Your task to perform on an android device: toggle notification dots Image 0: 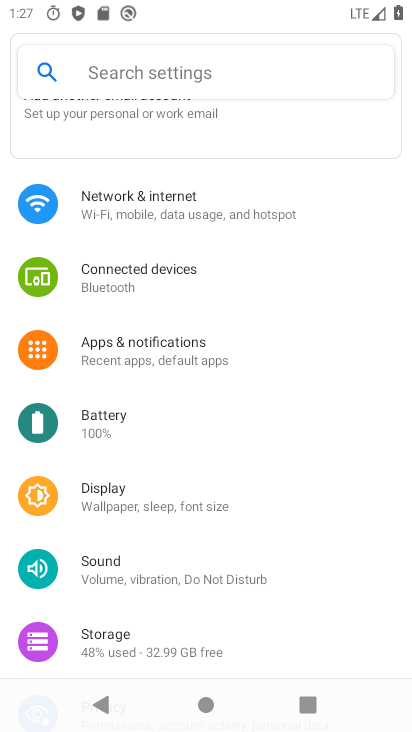
Step 0: press home button
Your task to perform on an android device: toggle notification dots Image 1: 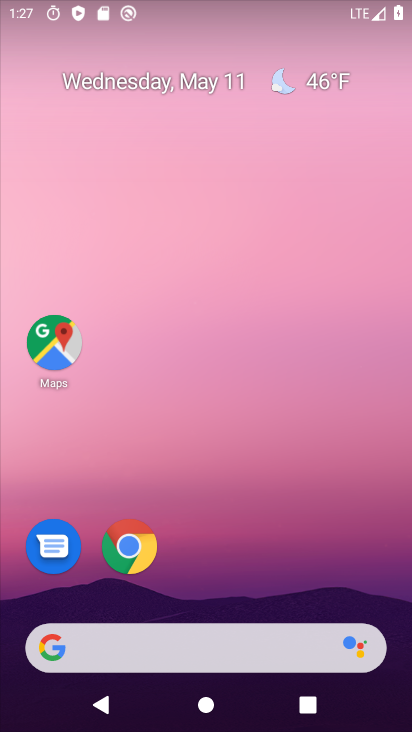
Step 1: drag from (297, 654) to (237, 223)
Your task to perform on an android device: toggle notification dots Image 2: 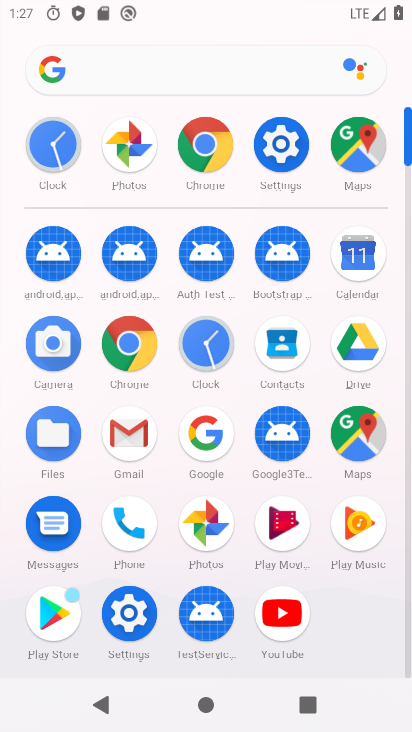
Step 2: click (285, 149)
Your task to perform on an android device: toggle notification dots Image 3: 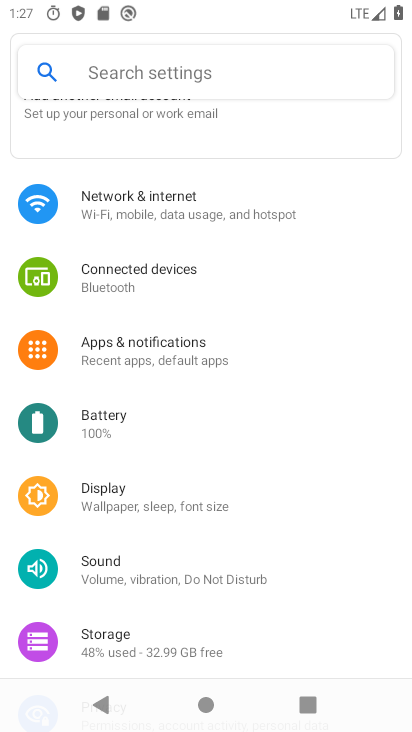
Step 3: click (184, 74)
Your task to perform on an android device: toggle notification dots Image 4: 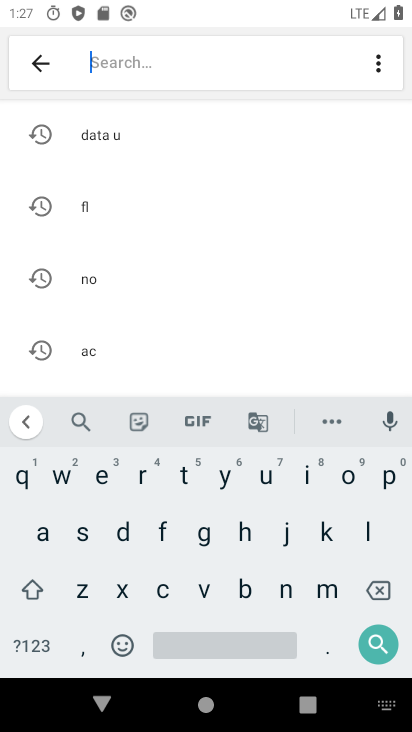
Step 4: click (122, 528)
Your task to perform on an android device: toggle notification dots Image 5: 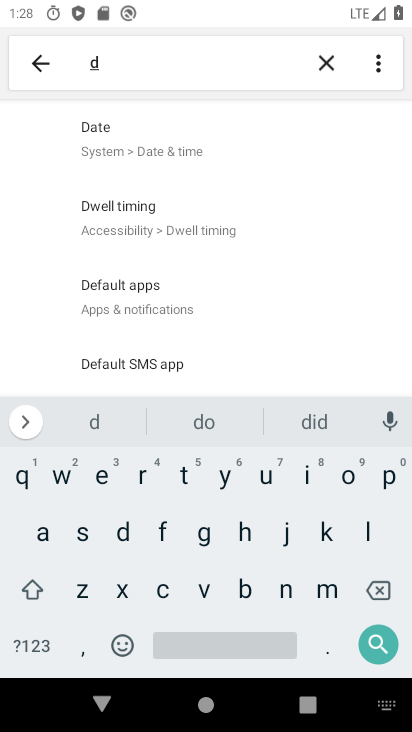
Step 5: click (348, 476)
Your task to perform on an android device: toggle notification dots Image 6: 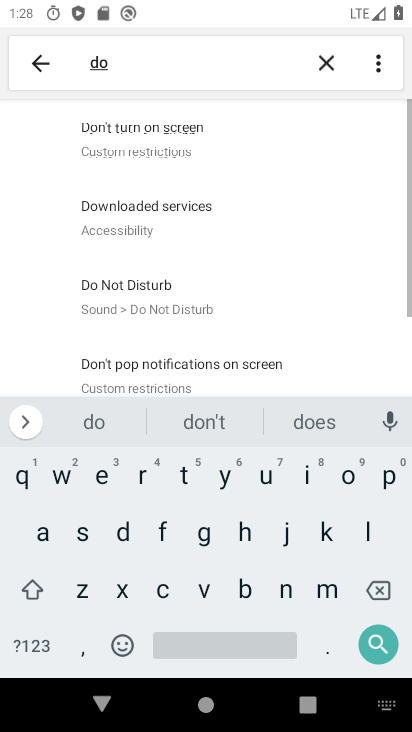
Step 6: click (178, 472)
Your task to perform on an android device: toggle notification dots Image 7: 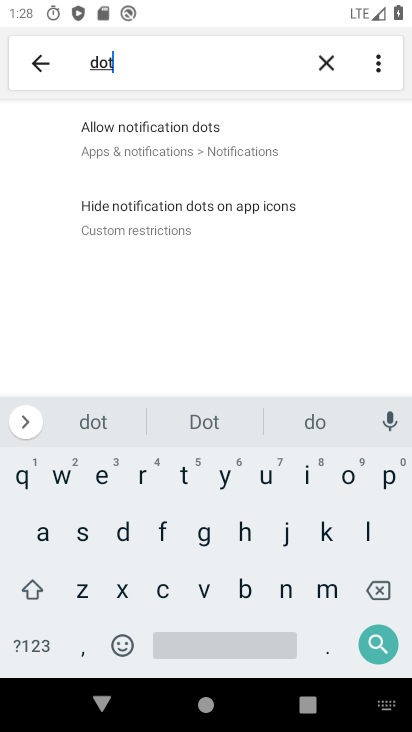
Step 7: click (175, 136)
Your task to perform on an android device: toggle notification dots Image 8: 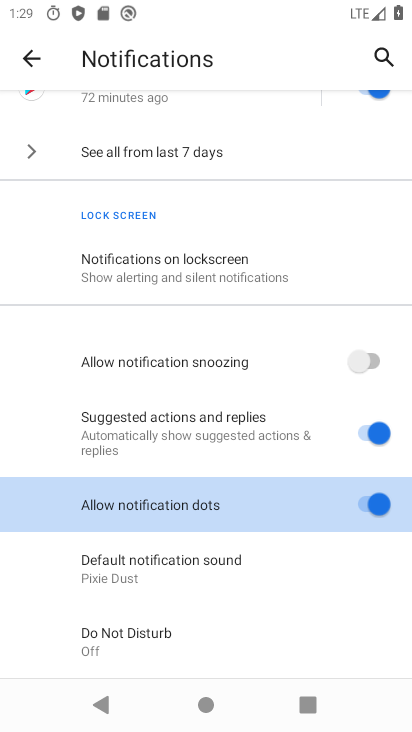
Step 8: click (180, 499)
Your task to perform on an android device: toggle notification dots Image 9: 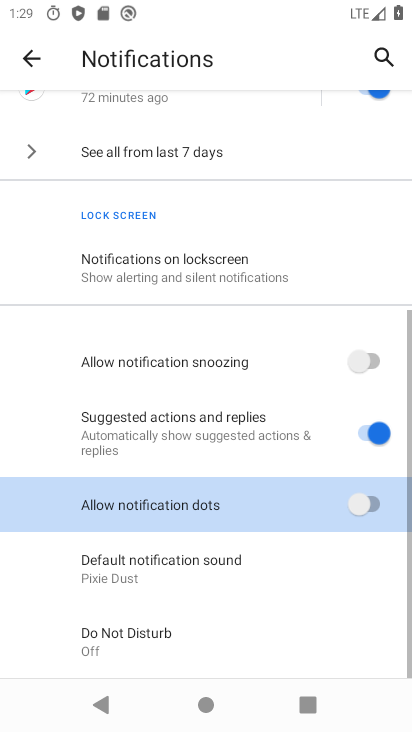
Step 9: click (180, 499)
Your task to perform on an android device: toggle notification dots Image 10: 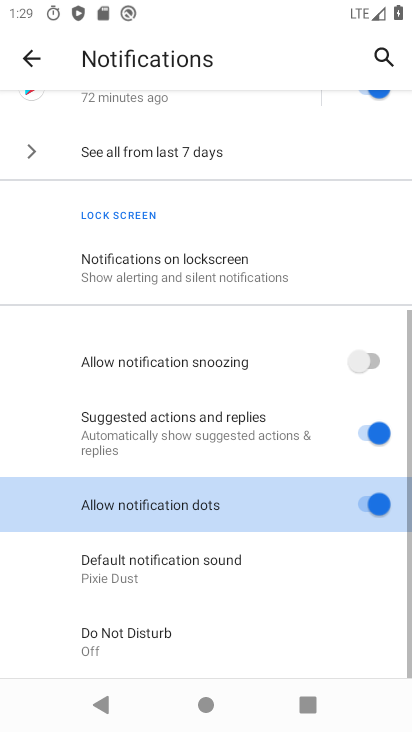
Step 10: task complete